Your task to perform on an android device: open app "ZOOM Cloud Meetings" (install if not already installed) Image 0: 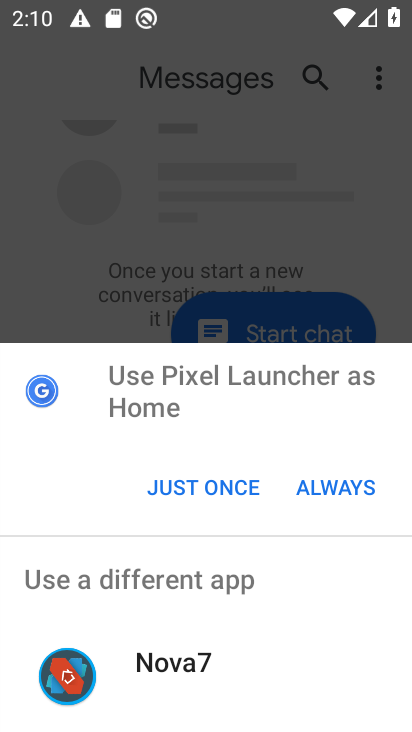
Step 0: press home button
Your task to perform on an android device: open app "ZOOM Cloud Meetings" (install if not already installed) Image 1: 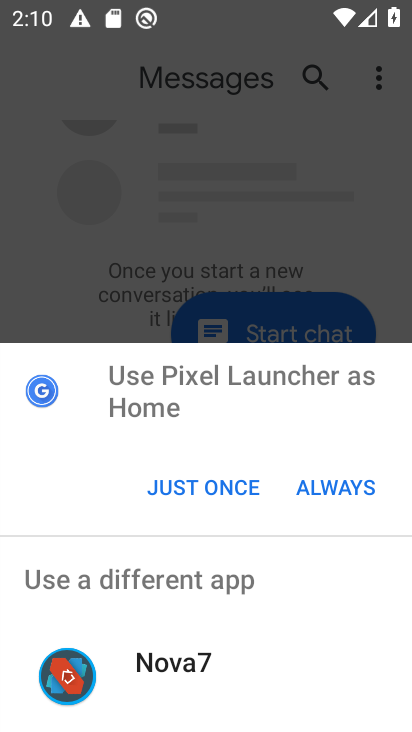
Step 1: press home button
Your task to perform on an android device: open app "ZOOM Cloud Meetings" (install if not already installed) Image 2: 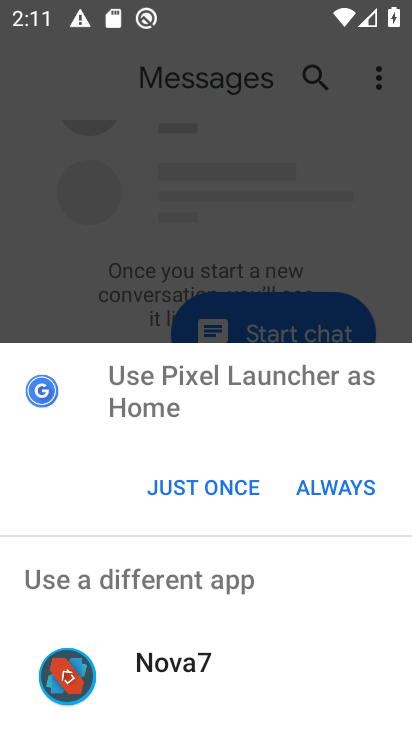
Step 2: click (198, 492)
Your task to perform on an android device: open app "ZOOM Cloud Meetings" (install if not already installed) Image 3: 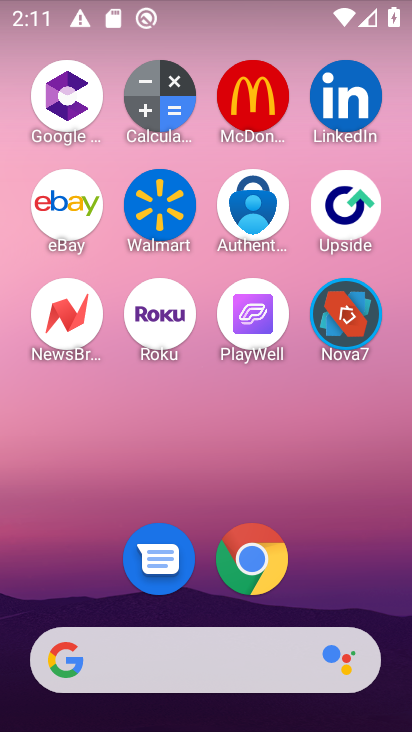
Step 3: drag from (240, 554) to (190, 152)
Your task to perform on an android device: open app "ZOOM Cloud Meetings" (install if not already installed) Image 4: 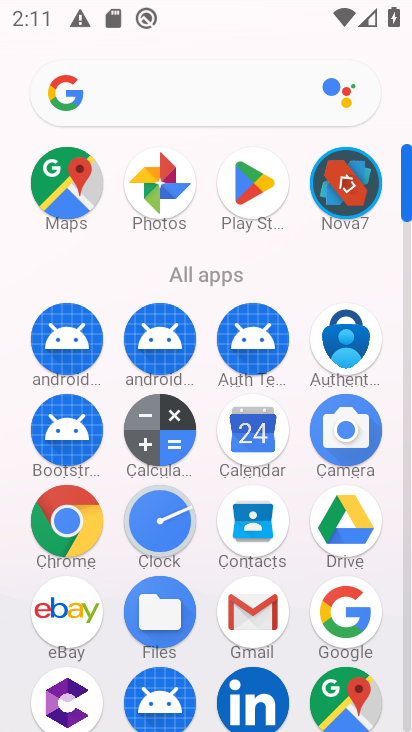
Step 4: click (259, 190)
Your task to perform on an android device: open app "ZOOM Cloud Meetings" (install if not already installed) Image 5: 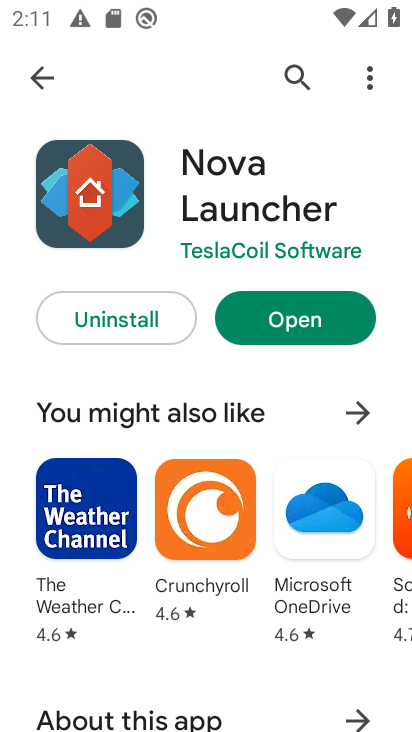
Step 5: click (301, 75)
Your task to perform on an android device: open app "ZOOM Cloud Meetings" (install if not already installed) Image 6: 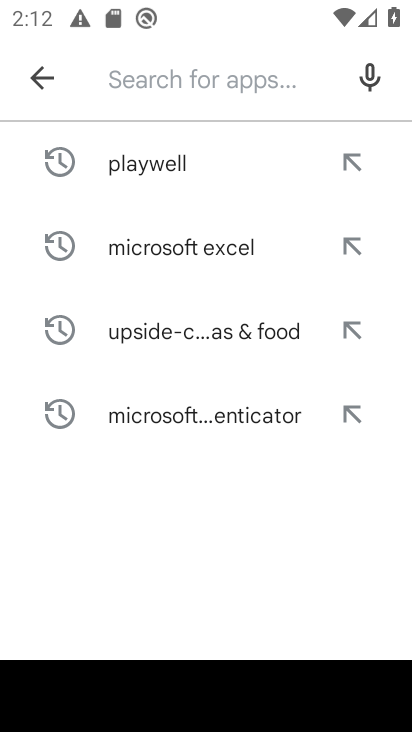
Step 6: type "ZOOM Cloud Meetings"
Your task to perform on an android device: open app "ZOOM Cloud Meetings" (install if not already installed) Image 7: 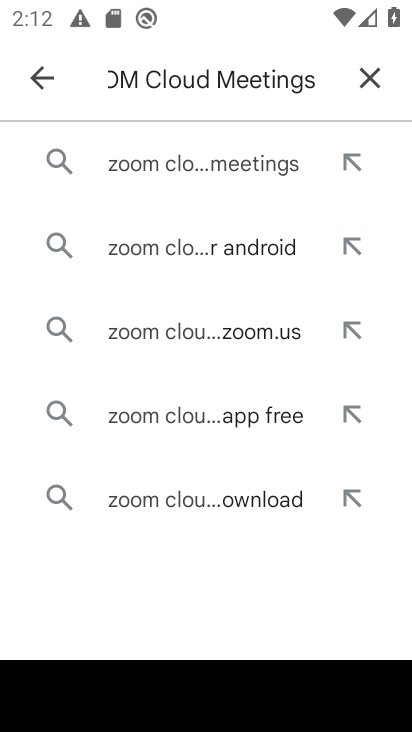
Step 7: click (185, 167)
Your task to perform on an android device: open app "ZOOM Cloud Meetings" (install if not already installed) Image 8: 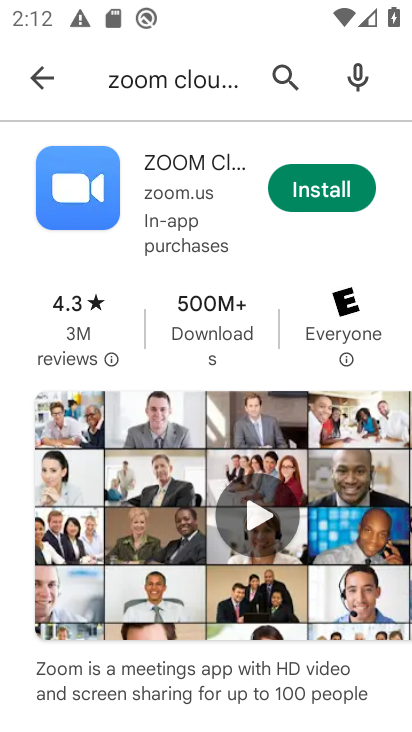
Step 8: click (332, 190)
Your task to perform on an android device: open app "ZOOM Cloud Meetings" (install if not already installed) Image 9: 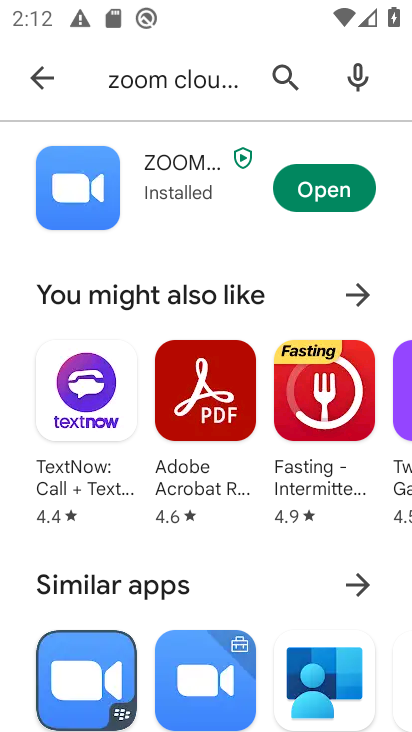
Step 9: click (311, 188)
Your task to perform on an android device: open app "ZOOM Cloud Meetings" (install if not already installed) Image 10: 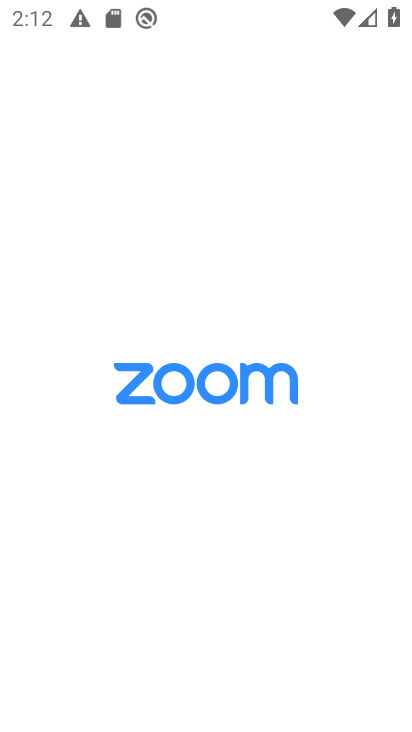
Step 10: task complete